Your task to perform on an android device: Open notification settings Image 0: 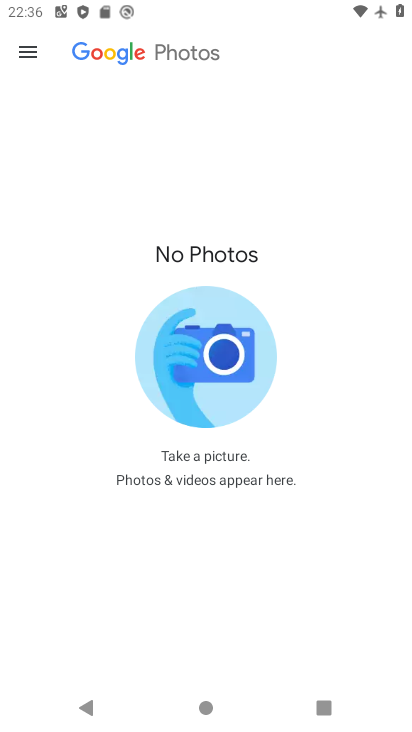
Step 0: press home button
Your task to perform on an android device: Open notification settings Image 1: 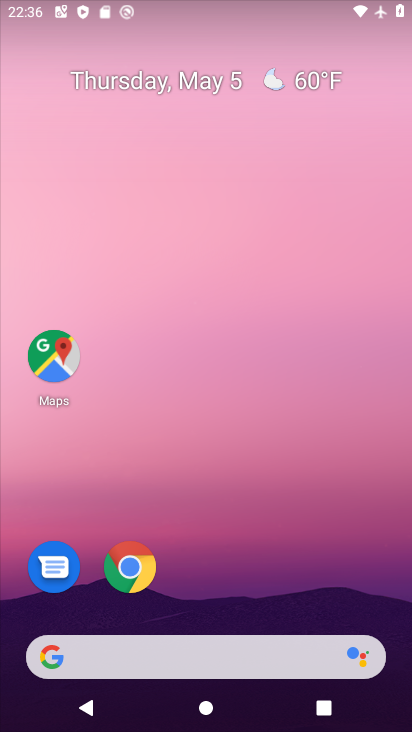
Step 1: drag from (254, 490) to (266, 98)
Your task to perform on an android device: Open notification settings Image 2: 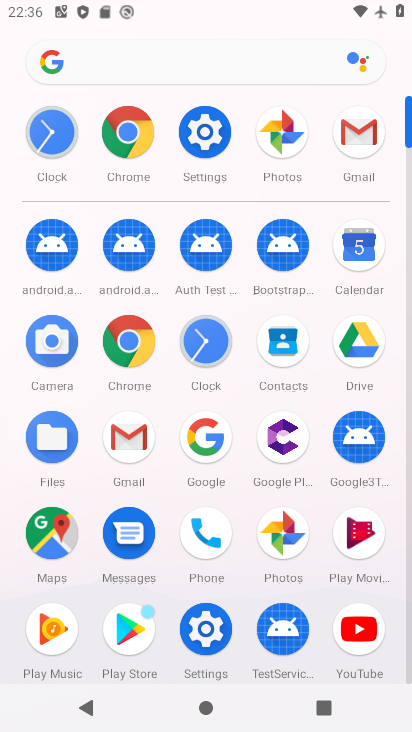
Step 2: click (216, 141)
Your task to perform on an android device: Open notification settings Image 3: 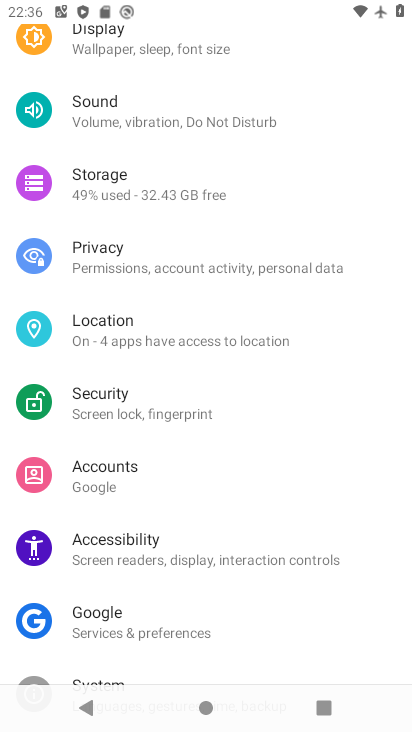
Step 3: drag from (186, 107) to (179, 410)
Your task to perform on an android device: Open notification settings Image 4: 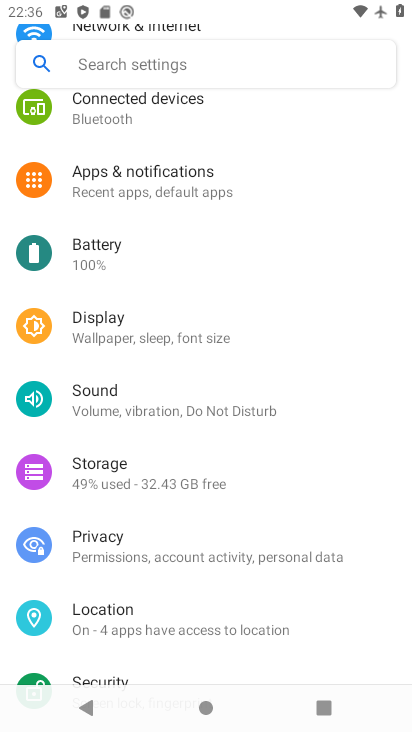
Step 4: click (178, 197)
Your task to perform on an android device: Open notification settings Image 5: 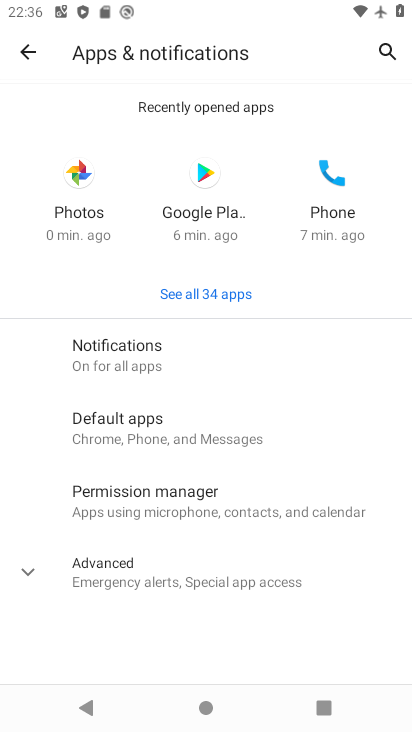
Step 5: click (162, 357)
Your task to perform on an android device: Open notification settings Image 6: 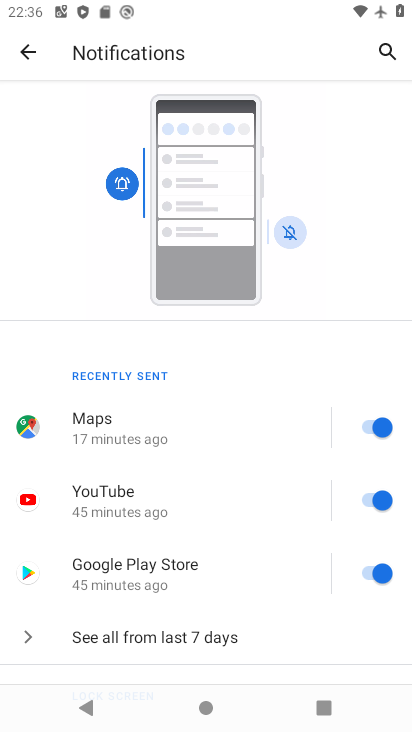
Step 6: task complete